Your task to perform on an android device: Go to display settings Image 0: 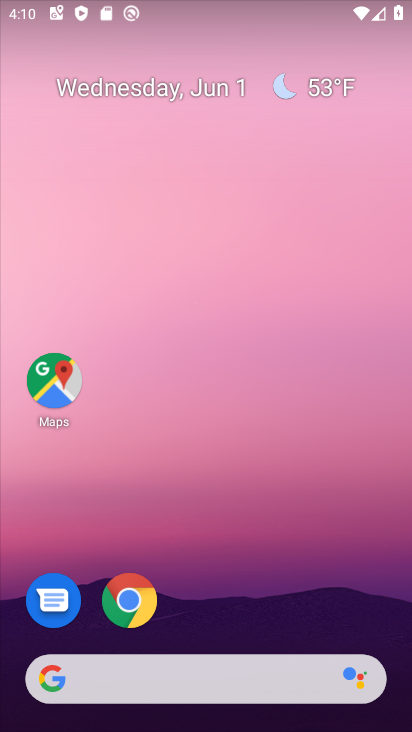
Step 0: drag from (375, 633) to (306, 184)
Your task to perform on an android device: Go to display settings Image 1: 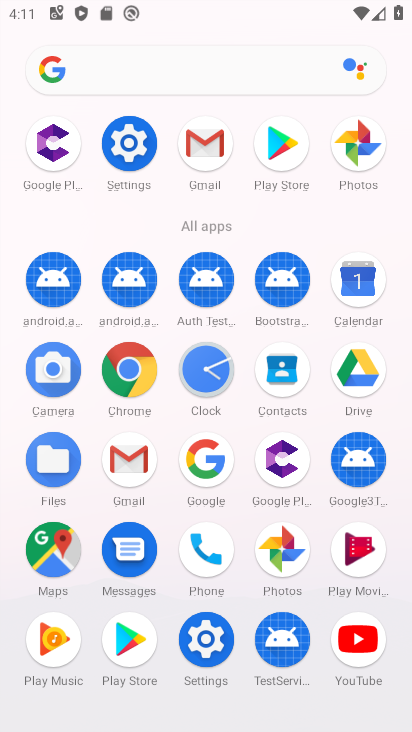
Step 1: click (202, 643)
Your task to perform on an android device: Go to display settings Image 2: 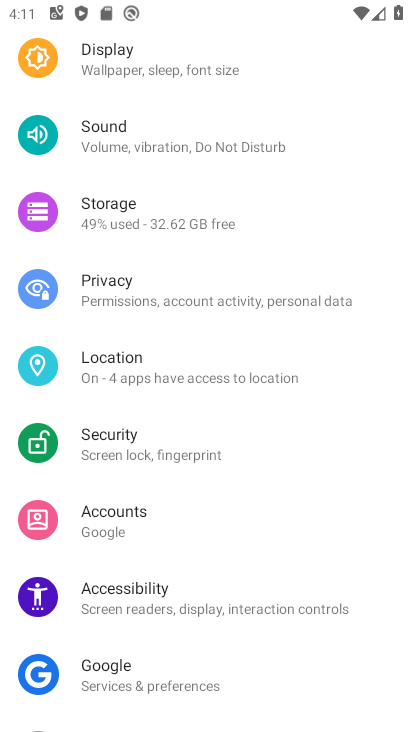
Step 2: click (121, 48)
Your task to perform on an android device: Go to display settings Image 3: 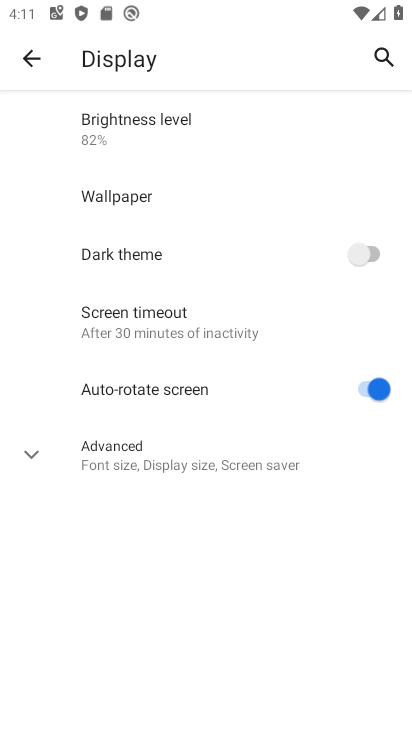
Step 3: click (23, 455)
Your task to perform on an android device: Go to display settings Image 4: 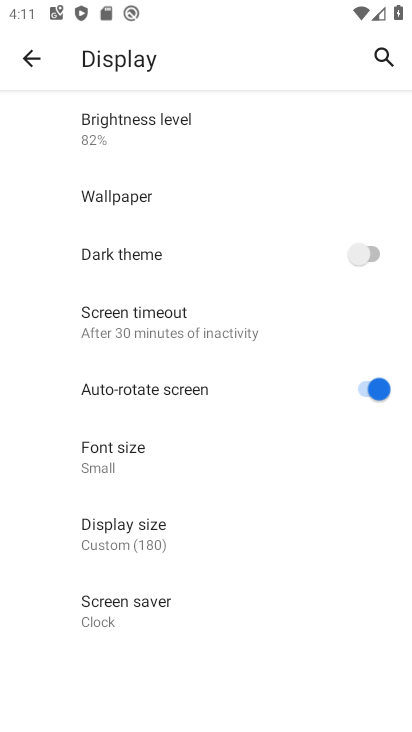
Step 4: task complete